Your task to perform on an android device: Open display settings Image 0: 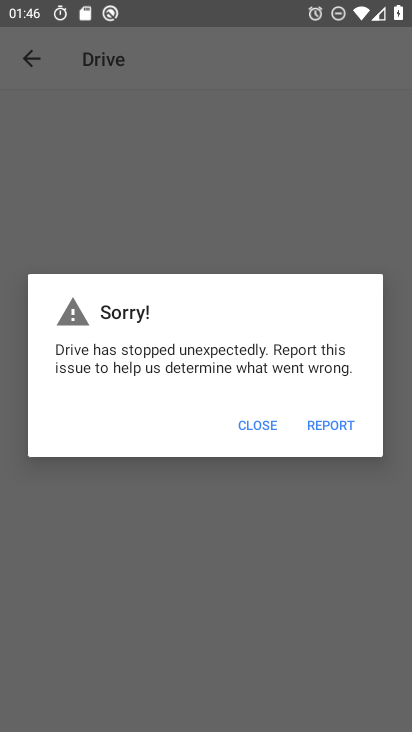
Step 0: press home button
Your task to perform on an android device: Open display settings Image 1: 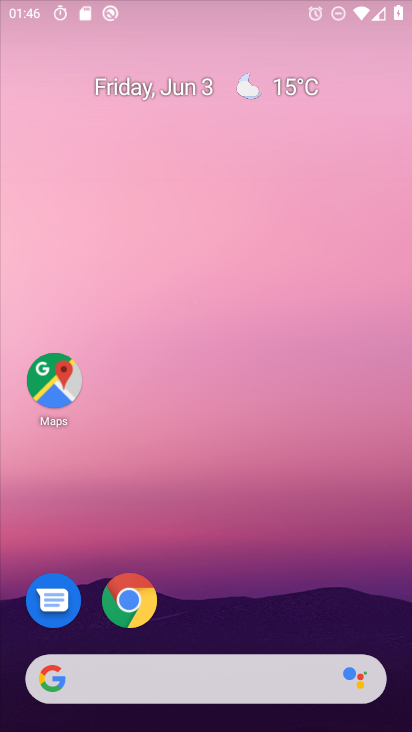
Step 1: drag from (231, 570) to (251, 34)
Your task to perform on an android device: Open display settings Image 2: 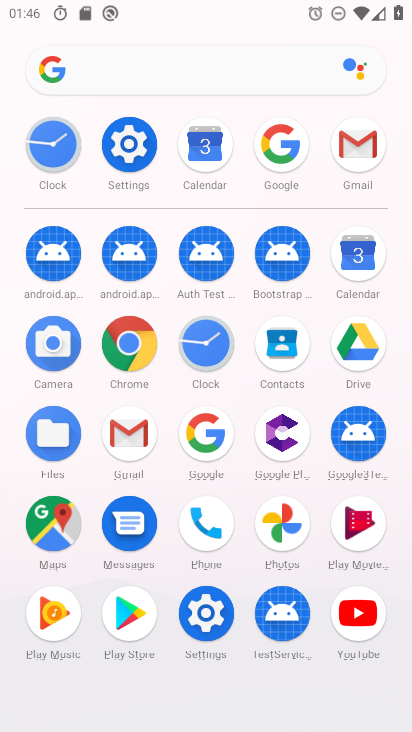
Step 2: click (122, 132)
Your task to perform on an android device: Open display settings Image 3: 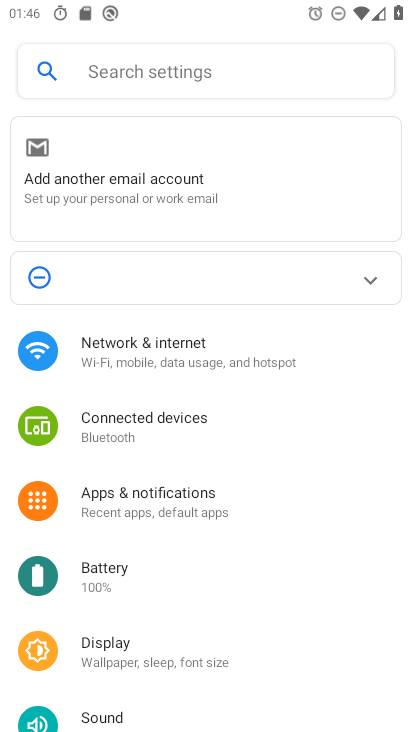
Step 3: click (131, 635)
Your task to perform on an android device: Open display settings Image 4: 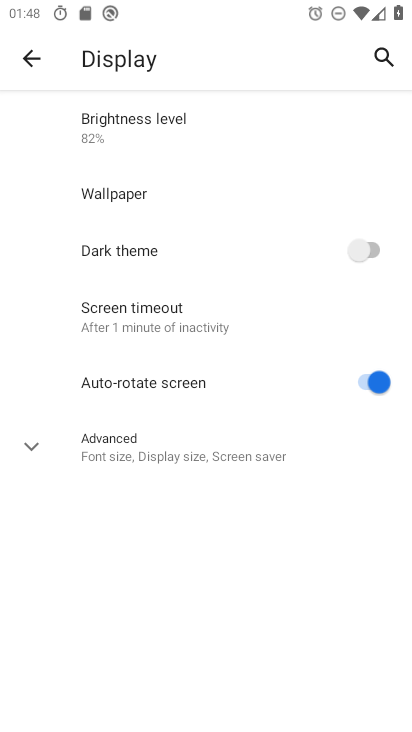
Step 4: task complete